Your task to perform on an android device: star an email in the gmail app Image 0: 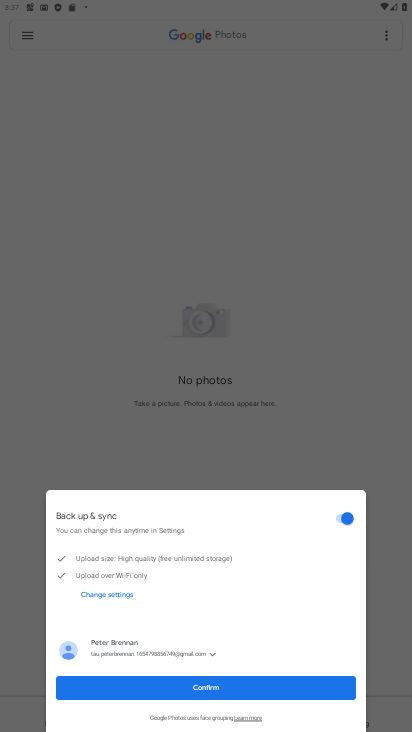
Step 0: press home button
Your task to perform on an android device: star an email in the gmail app Image 1: 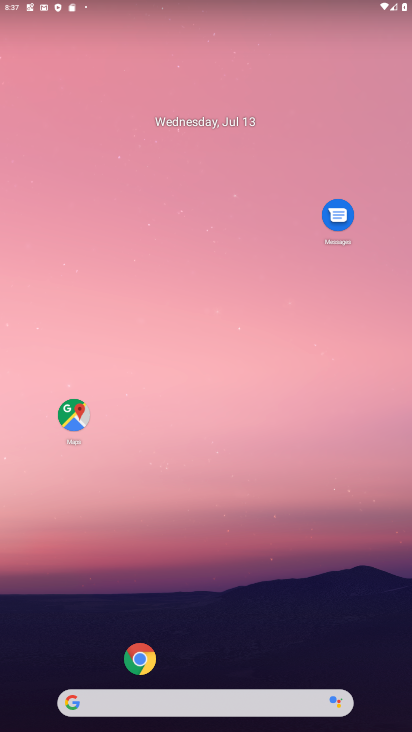
Step 1: drag from (52, 668) to (139, 216)
Your task to perform on an android device: star an email in the gmail app Image 2: 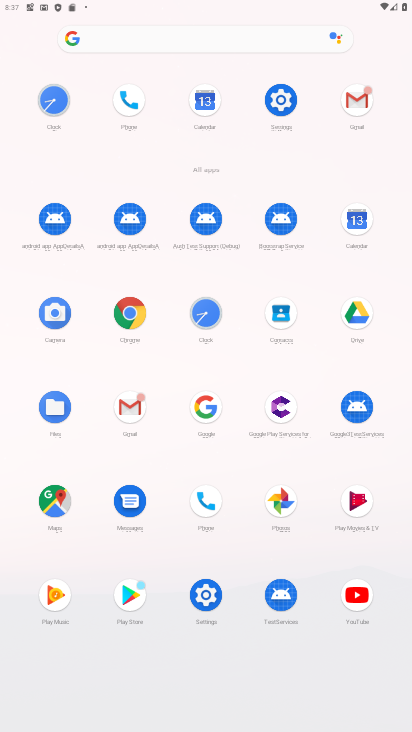
Step 2: click (124, 413)
Your task to perform on an android device: star an email in the gmail app Image 3: 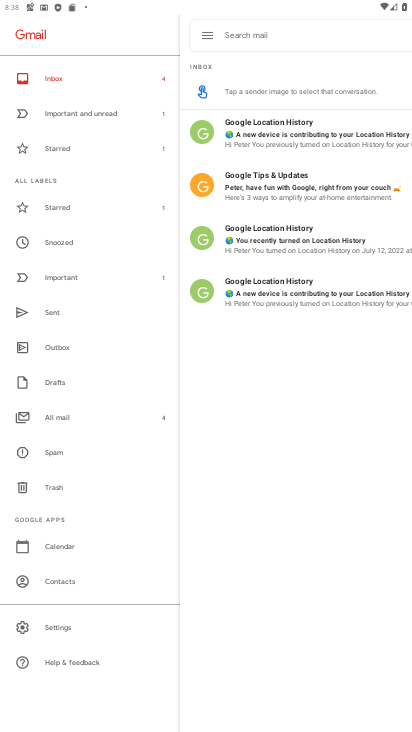
Step 3: task complete